Your task to perform on an android device: toggle airplane mode Image 0: 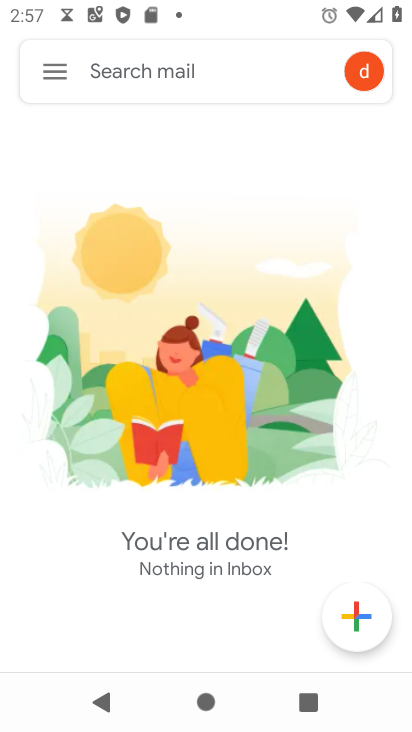
Step 0: press back button
Your task to perform on an android device: toggle airplane mode Image 1: 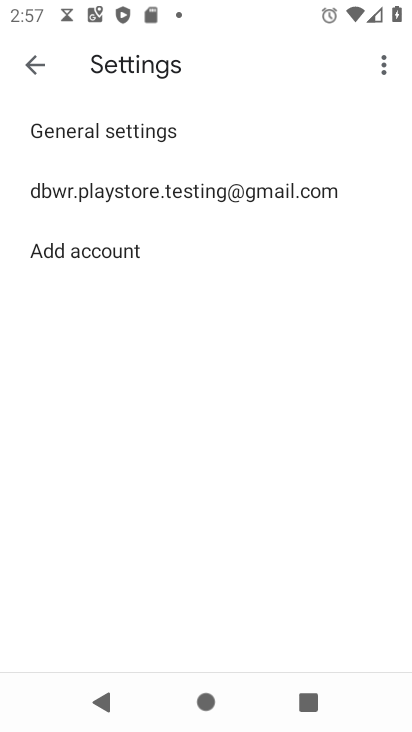
Step 1: press back button
Your task to perform on an android device: toggle airplane mode Image 2: 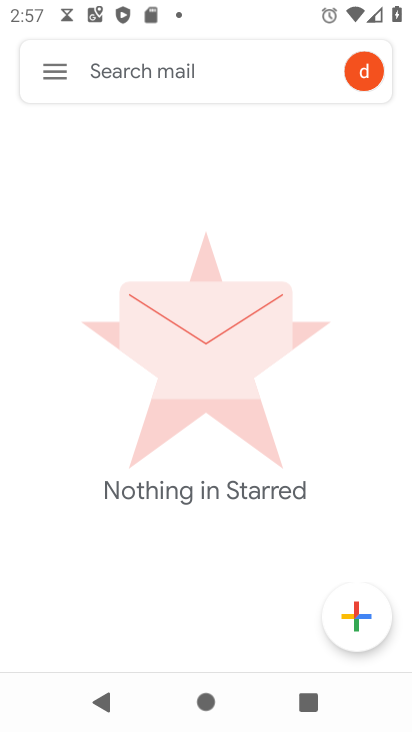
Step 2: press back button
Your task to perform on an android device: toggle airplane mode Image 3: 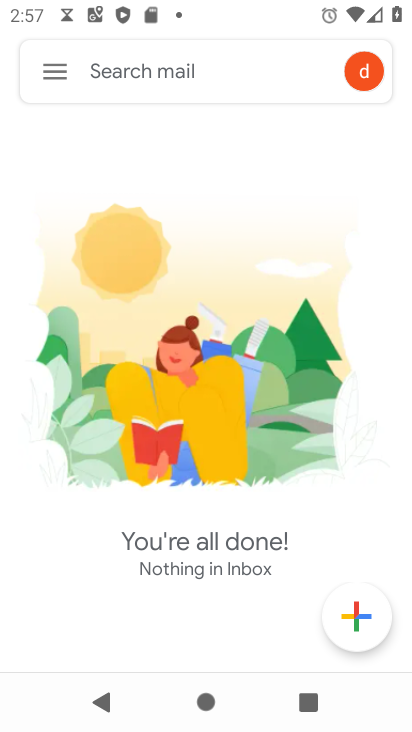
Step 3: press back button
Your task to perform on an android device: toggle airplane mode Image 4: 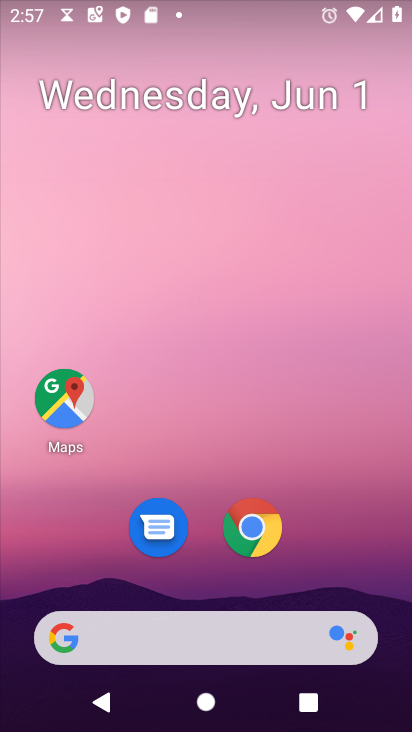
Step 4: drag from (308, 548) to (249, 118)
Your task to perform on an android device: toggle airplane mode Image 5: 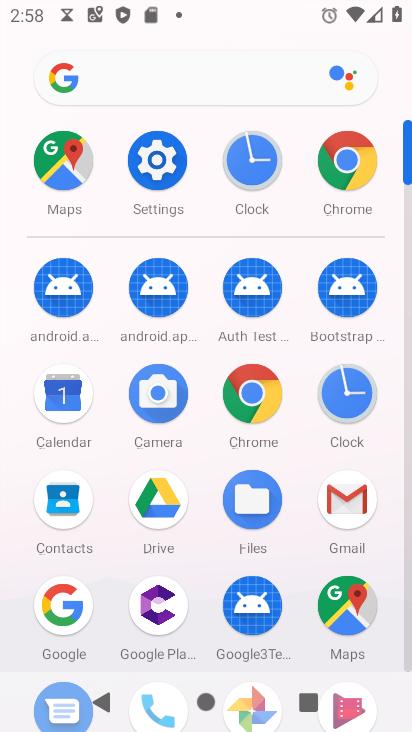
Step 5: click (156, 158)
Your task to perform on an android device: toggle airplane mode Image 6: 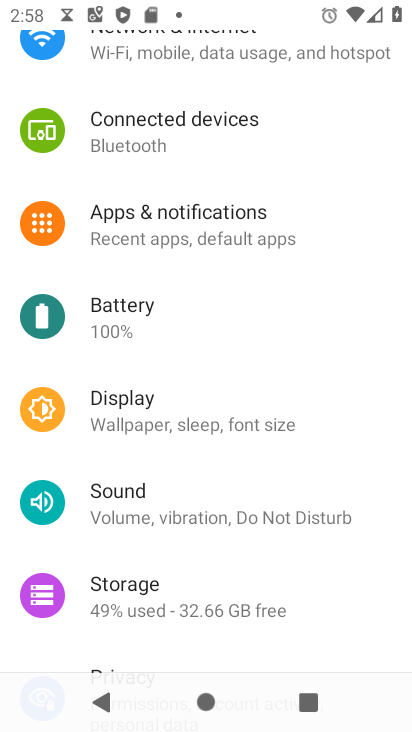
Step 6: drag from (212, 182) to (226, 323)
Your task to perform on an android device: toggle airplane mode Image 7: 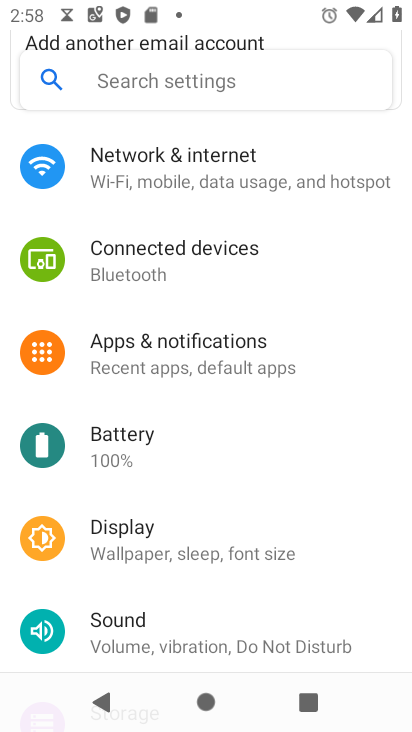
Step 7: click (199, 168)
Your task to perform on an android device: toggle airplane mode Image 8: 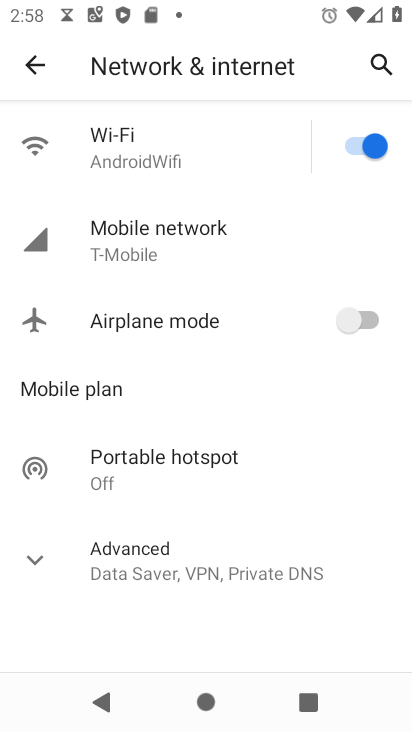
Step 8: click (345, 328)
Your task to perform on an android device: toggle airplane mode Image 9: 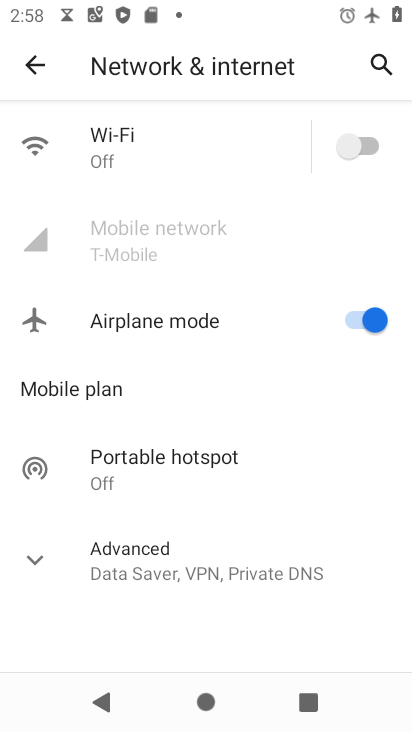
Step 9: task complete